Your task to perform on an android device: Check the weather Image 0: 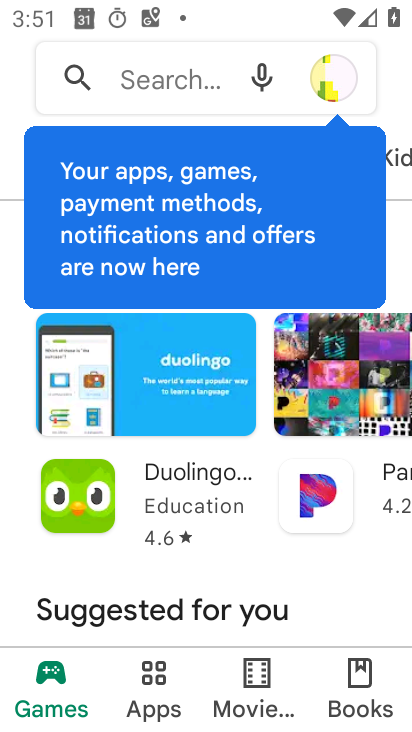
Step 0: press home button
Your task to perform on an android device: Check the weather Image 1: 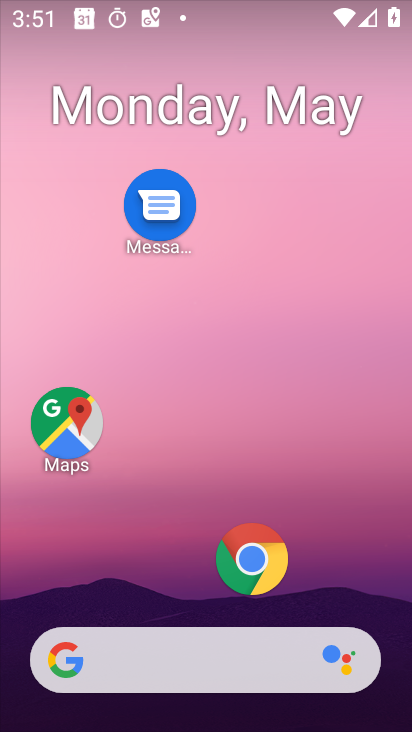
Step 1: click (247, 560)
Your task to perform on an android device: Check the weather Image 2: 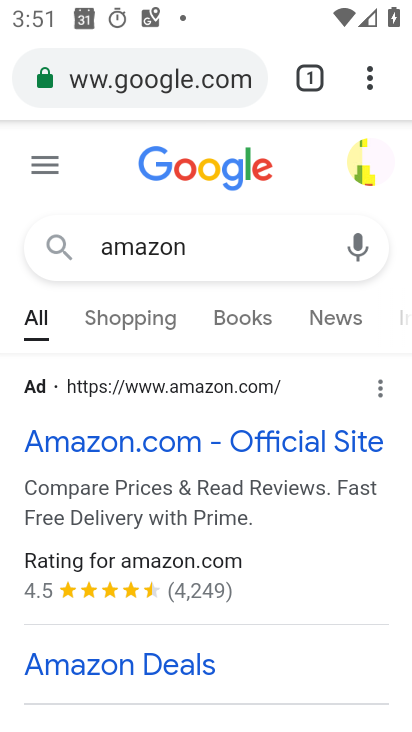
Step 2: click (129, 91)
Your task to perform on an android device: Check the weather Image 3: 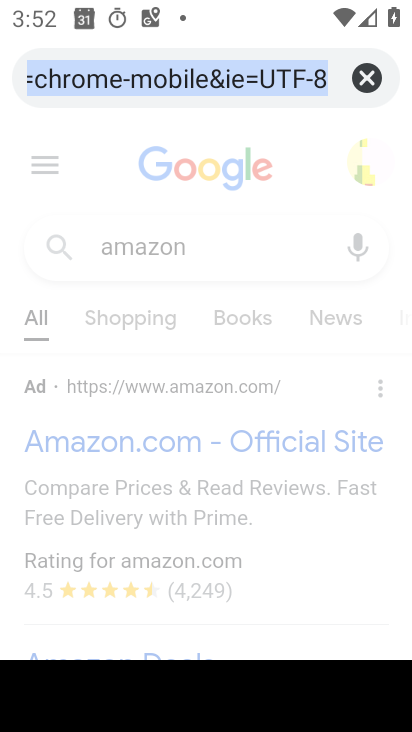
Step 3: type "weather"
Your task to perform on an android device: Check the weather Image 4: 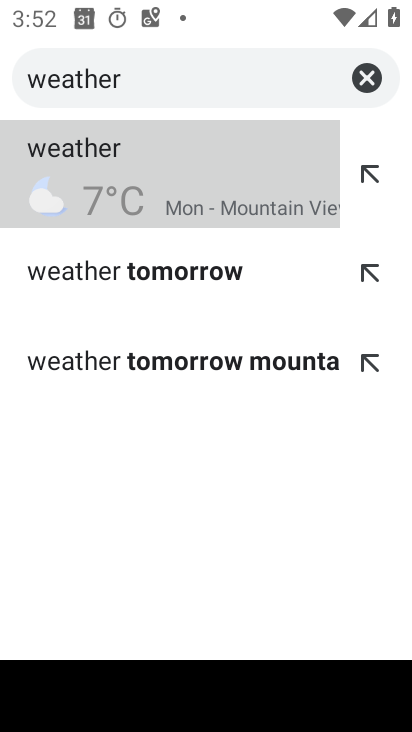
Step 4: click (181, 173)
Your task to perform on an android device: Check the weather Image 5: 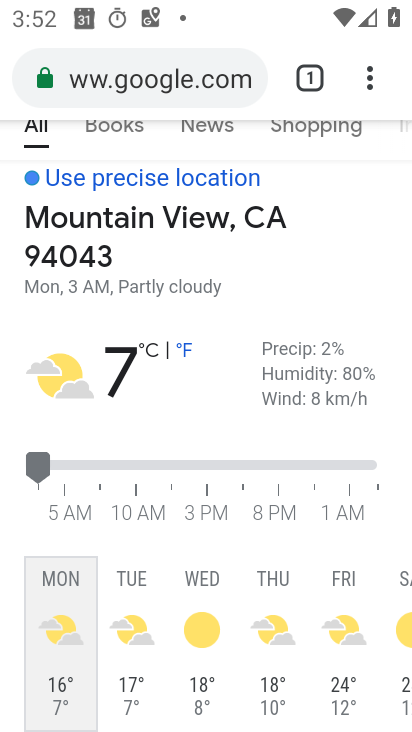
Step 5: task complete